Your task to perform on an android device: open app "Booking.com: Hotels and more" (install if not already installed) Image 0: 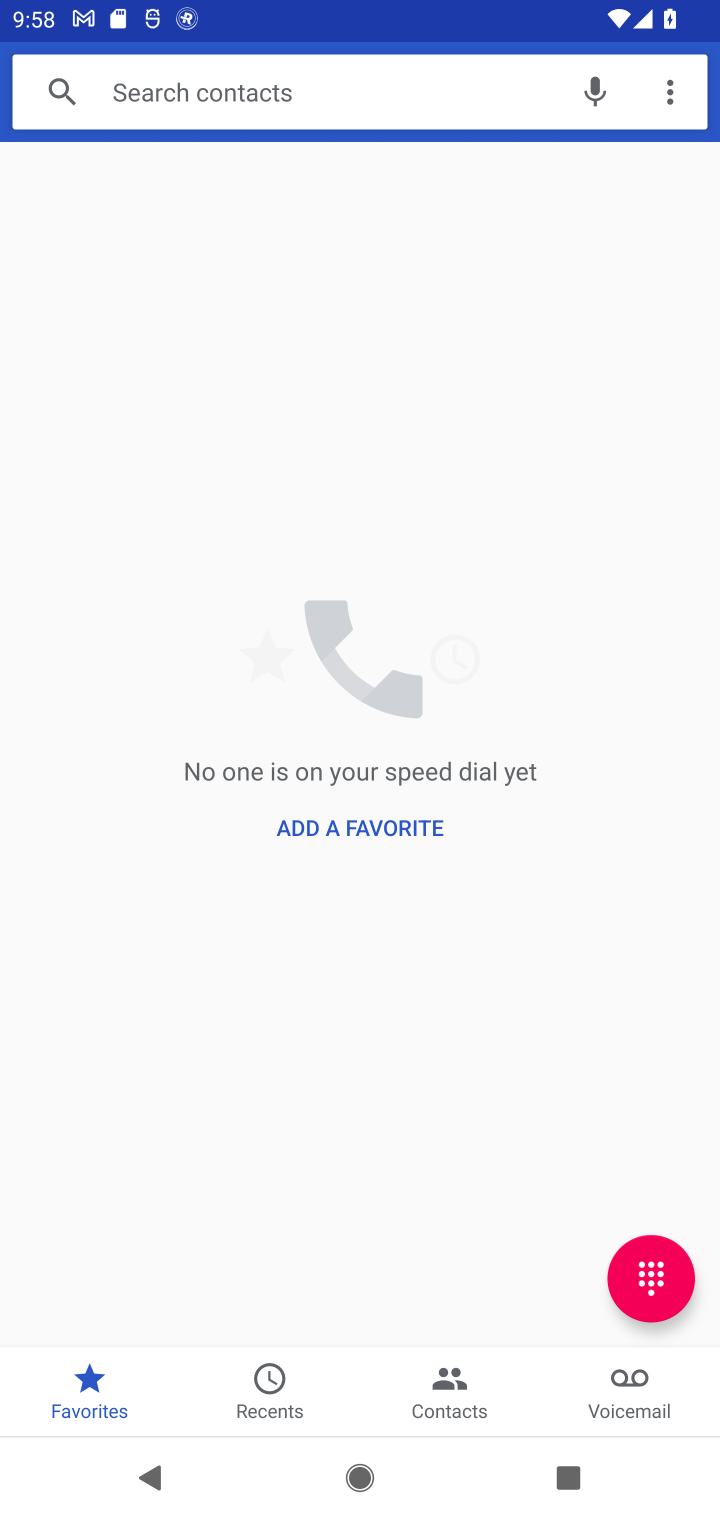
Step 0: press home button
Your task to perform on an android device: open app "Booking.com: Hotels and more" (install if not already installed) Image 1: 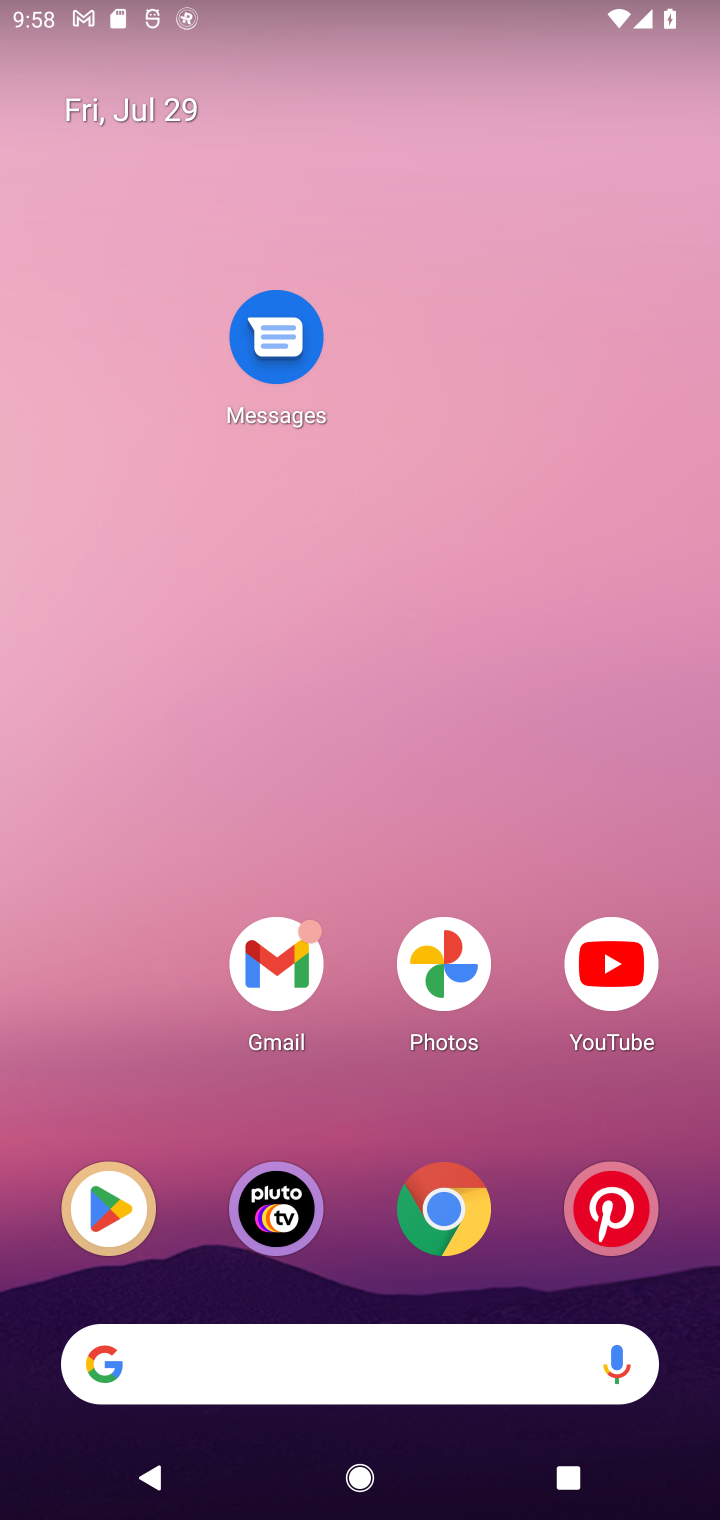
Step 1: drag from (301, 1385) to (475, 338)
Your task to perform on an android device: open app "Booking.com: Hotels and more" (install if not already installed) Image 2: 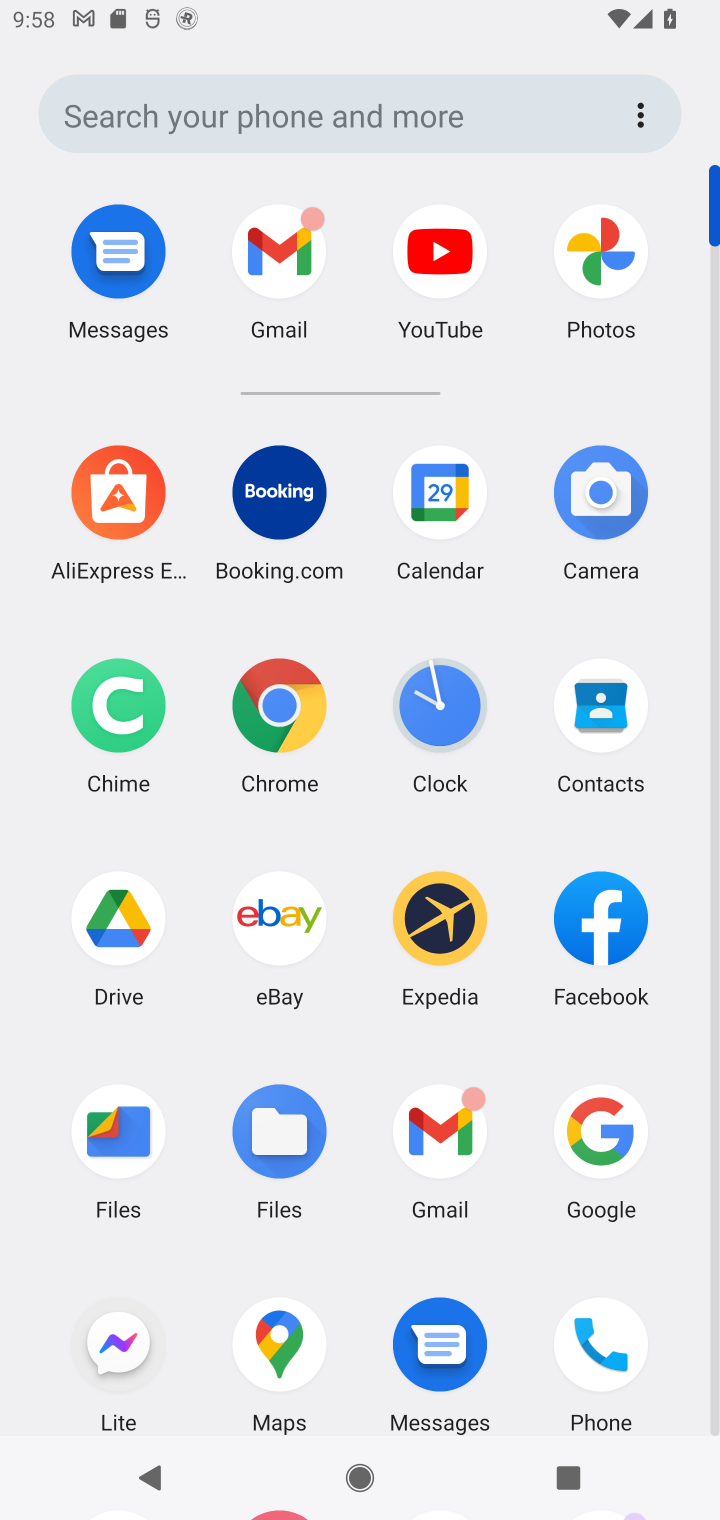
Step 2: drag from (337, 1296) to (379, 763)
Your task to perform on an android device: open app "Booking.com: Hotels and more" (install if not already installed) Image 3: 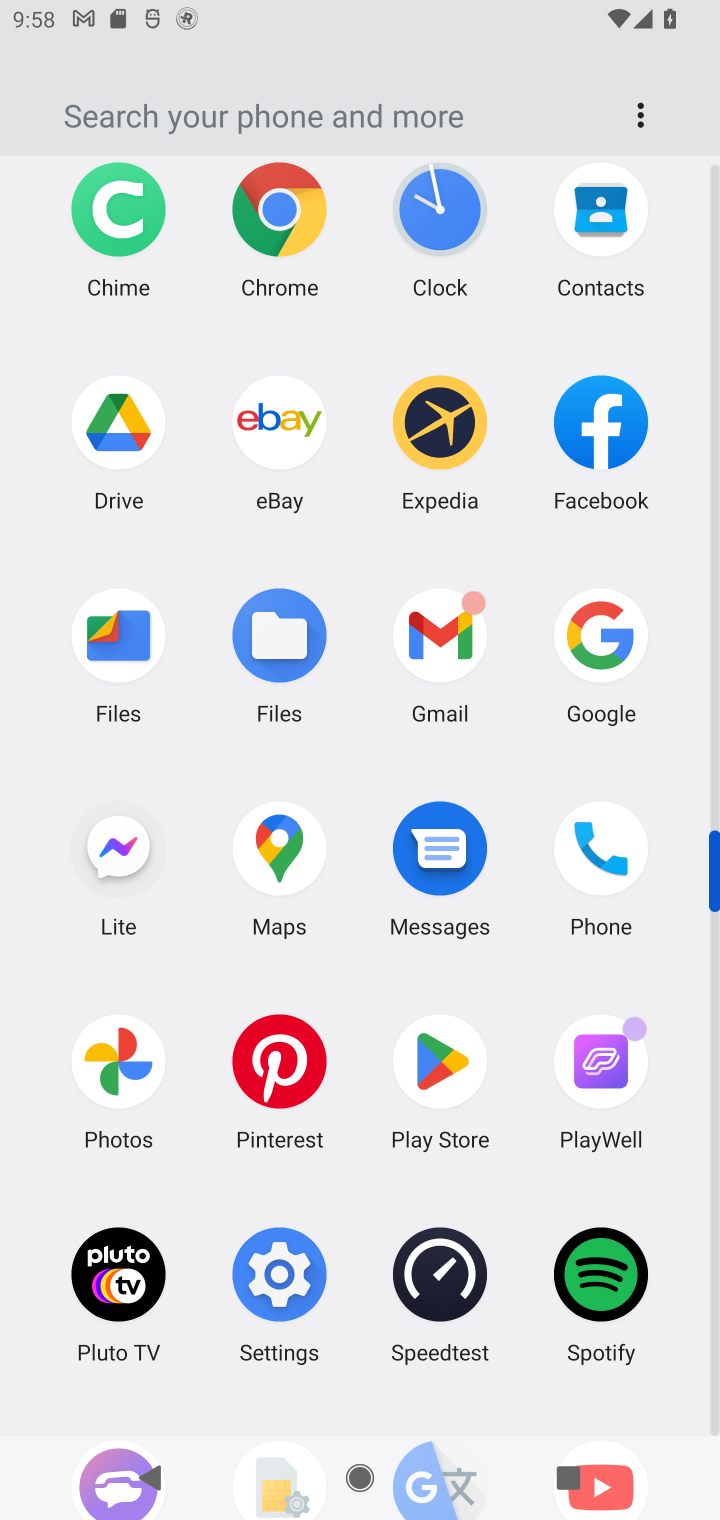
Step 3: click (444, 1057)
Your task to perform on an android device: open app "Booking.com: Hotels and more" (install if not already installed) Image 4: 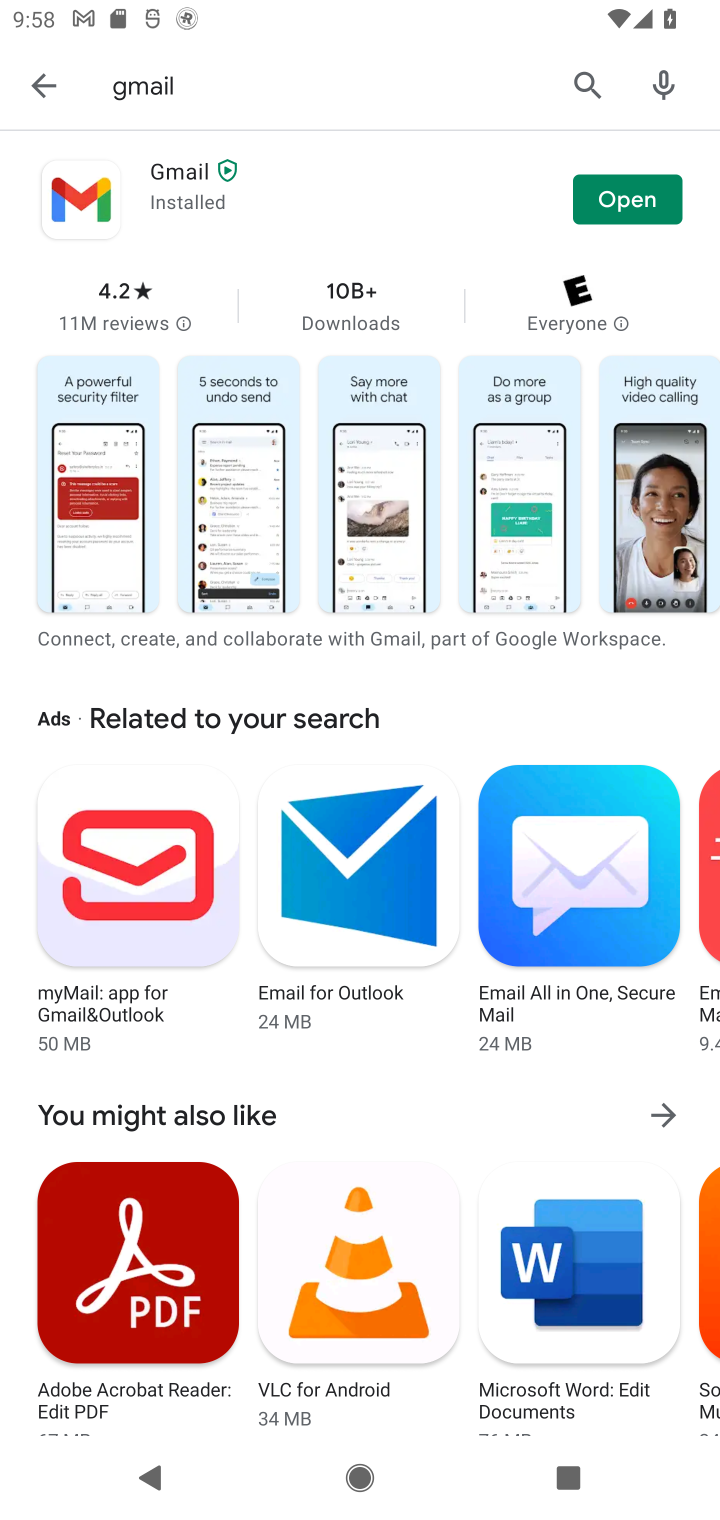
Step 4: click (584, 106)
Your task to perform on an android device: open app "Booking.com: Hotels and more" (install if not already installed) Image 5: 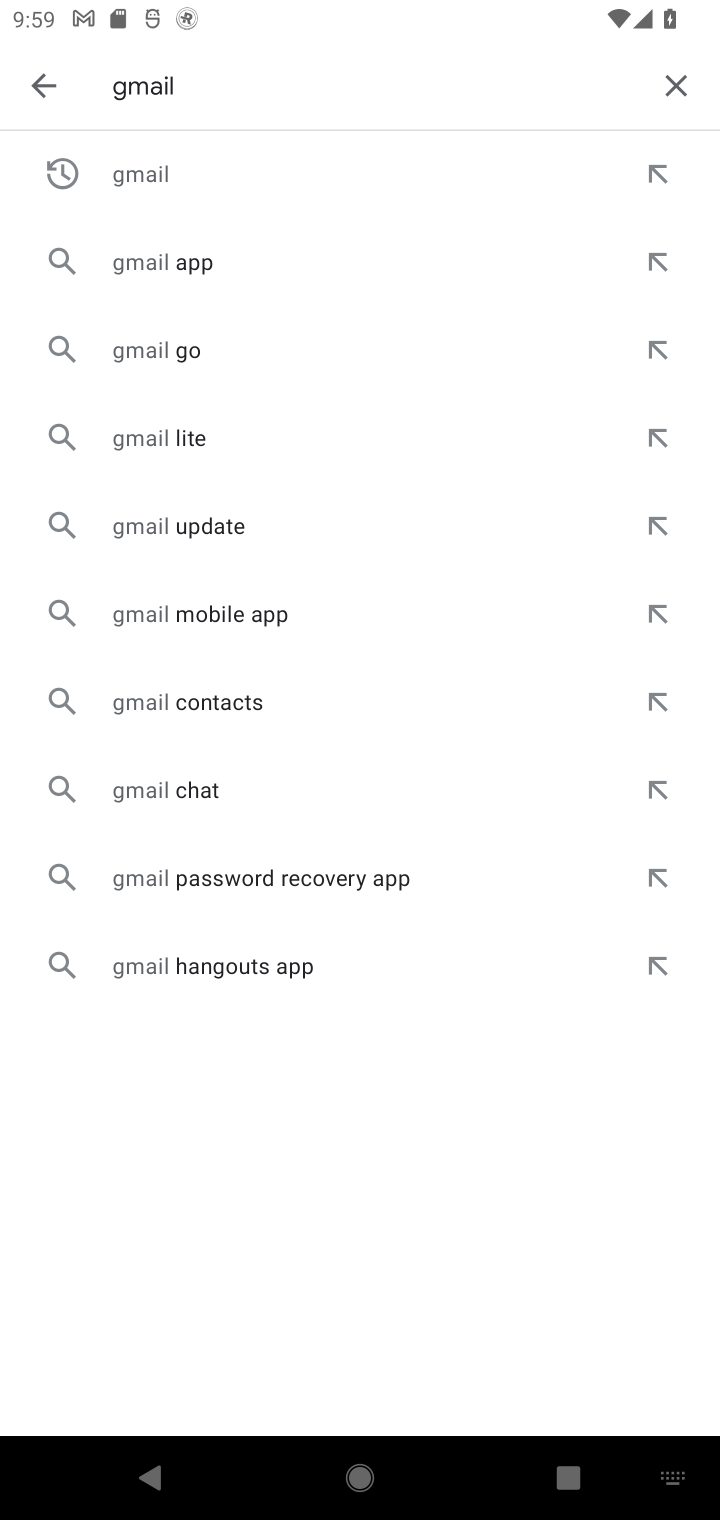
Step 5: click (682, 74)
Your task to perform on an android device: open app "Booking.com: Hotels and more" (install if not already installed) Image 6: 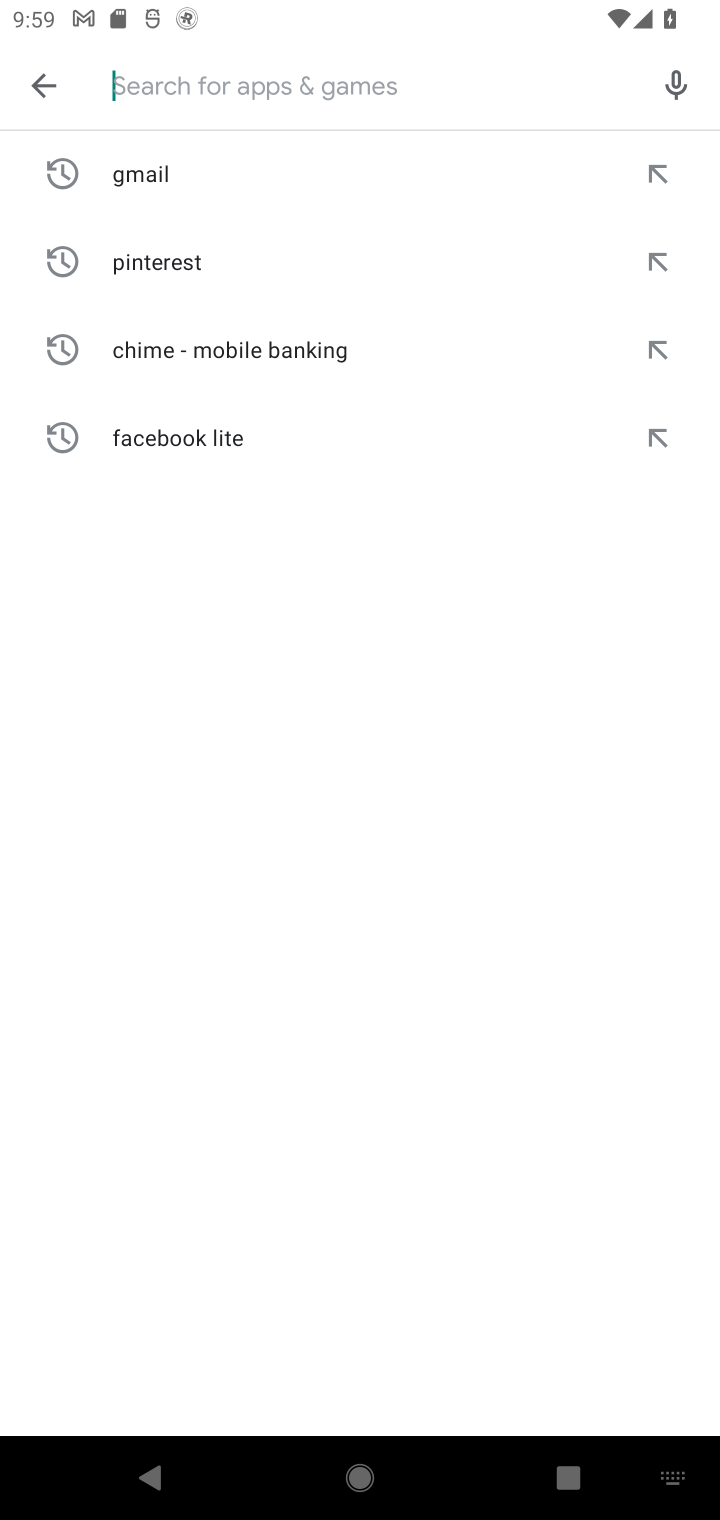
Step 6: type "Booking.com: Hotels and more"
Your task to perform on an android device: open app "Booking.com: Hotels and more" (install if not already installed) Image 7: 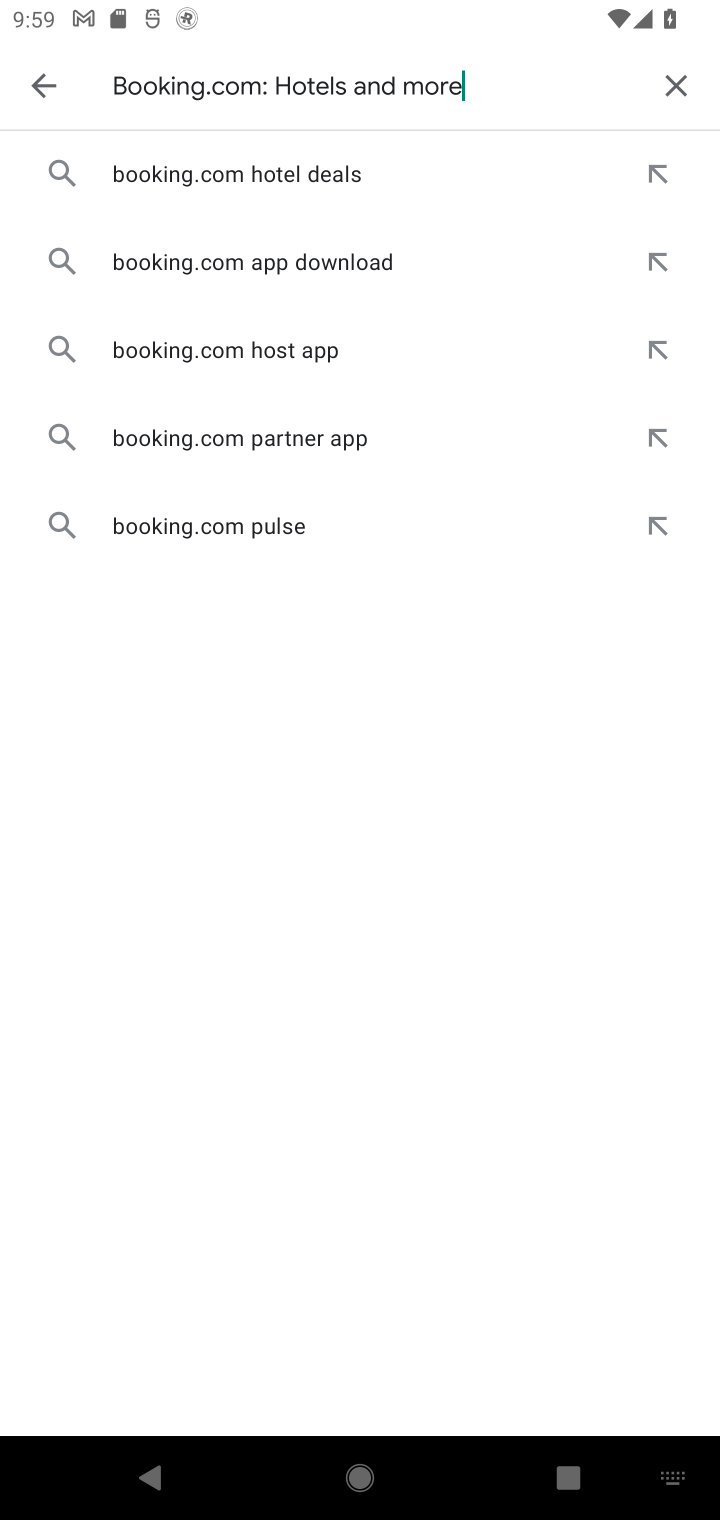
Step 7: type ""
Your task to perform on an android device: open app "Booking.com: Hotels and more" (install if not already installed) Image 8: 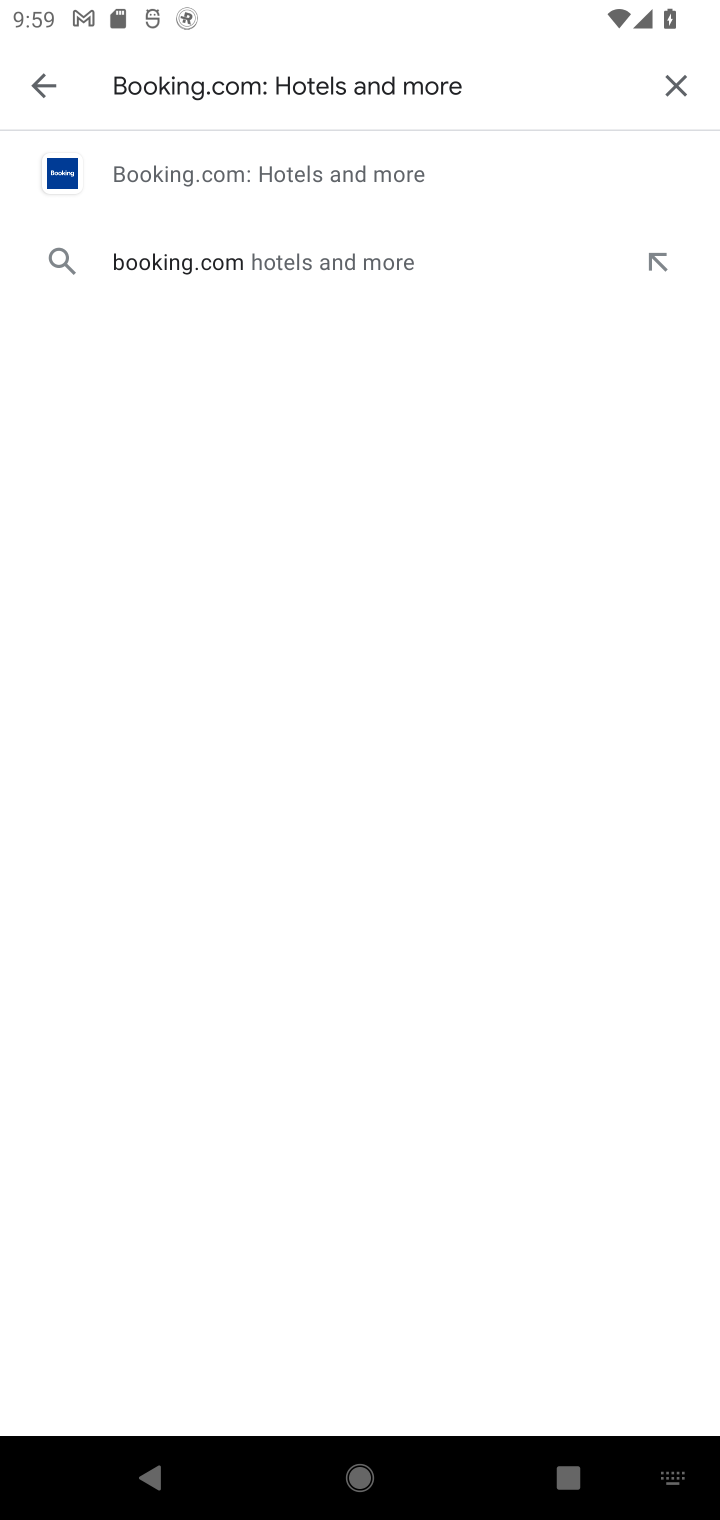
Step 8: click (315, 168)
Your task to perform on an android device: open app "Booking.com: Hotels and more" (install if not already installed) Image 9: 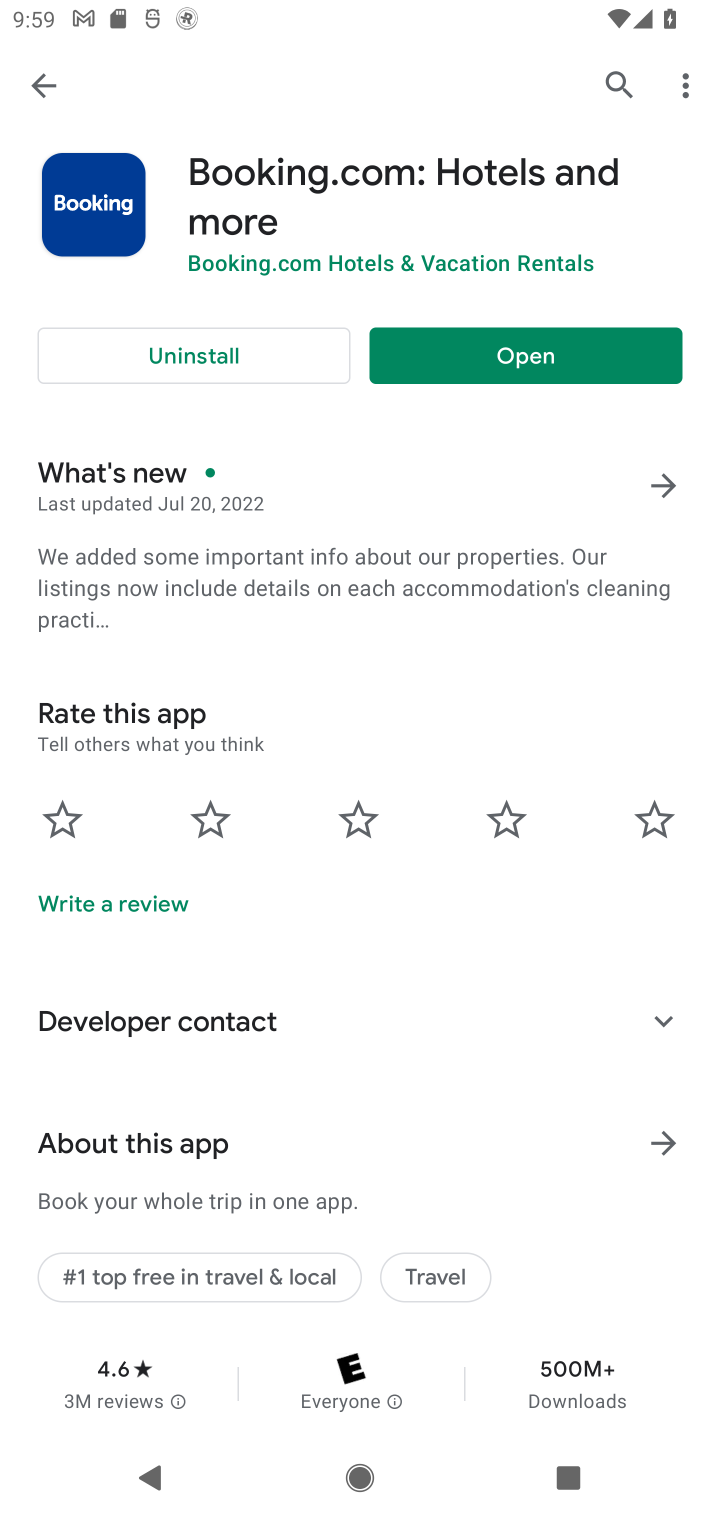
Step 9: click (429, 365)
Your task to perform on an android device: open app "Booking.com: Hotels and more" (install if not already installed) Image 10: 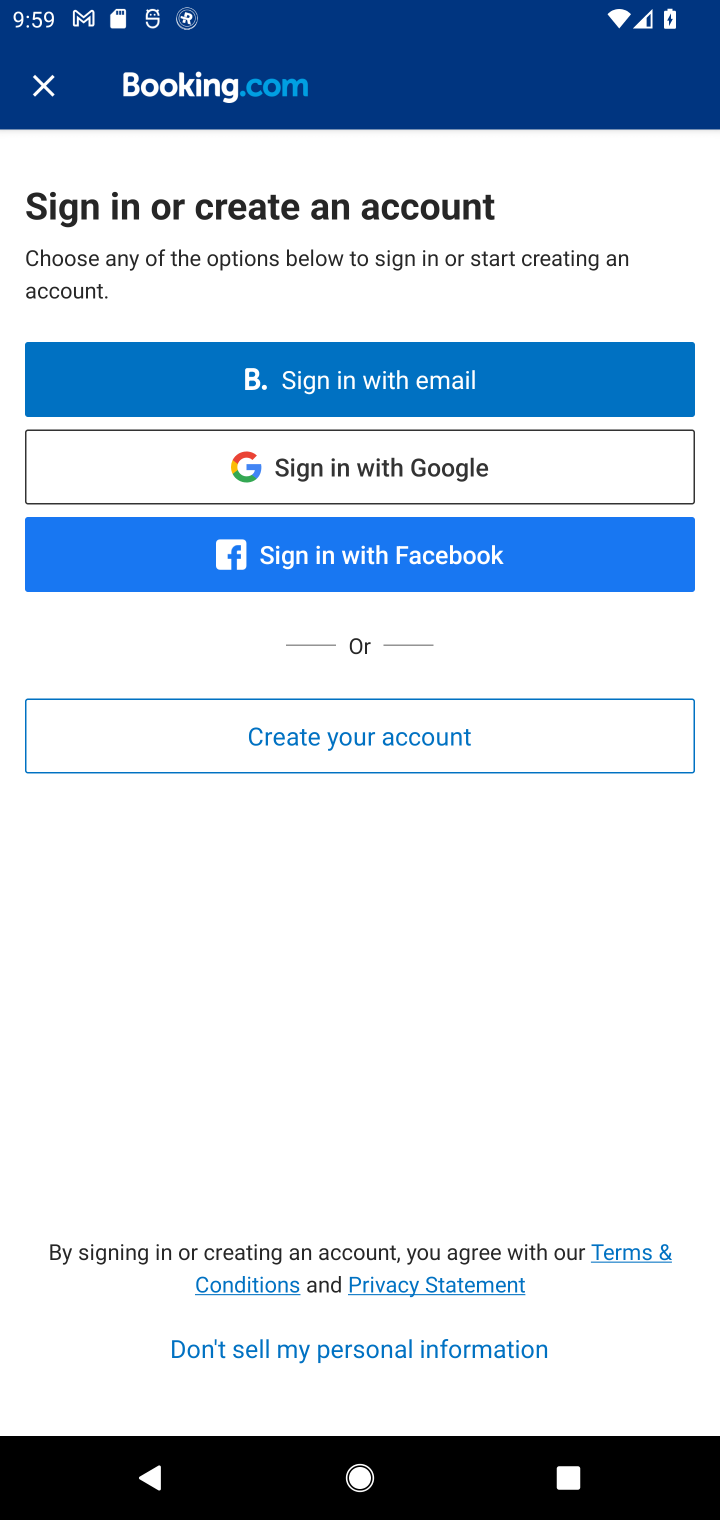
Step 10: task complete